Your task to perform on an android device: Open accessibility settings Image 0: 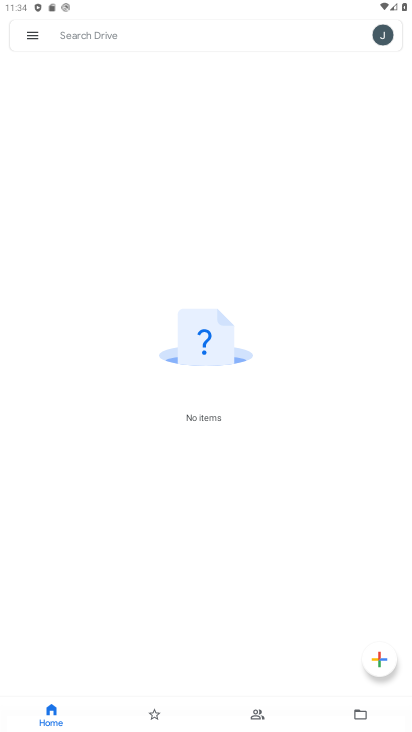
Step 0: press home button
Your task to perform on an android device: Open accessibility settings Image 1: 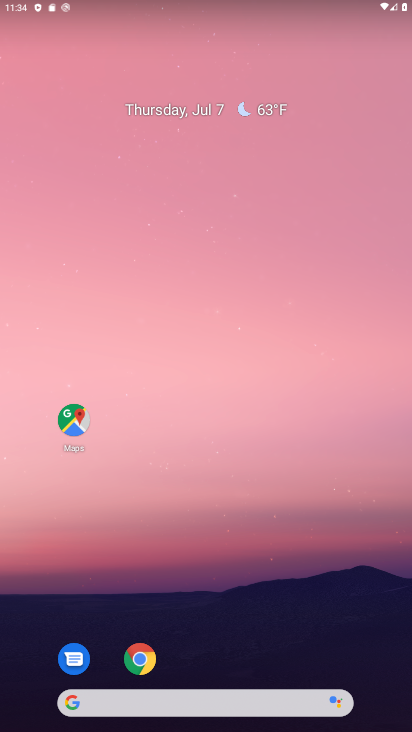
Step 1: drag from (209, 573) to (286, 6)
Your task to perform on an android device: Open accessibility settings Image 2: 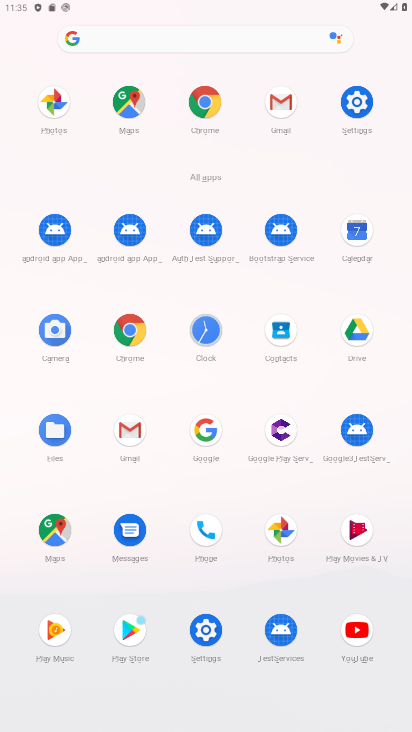
Step 2: click (203, 646)
Your task to perform on an android device: Open accessibility settings Image 3: 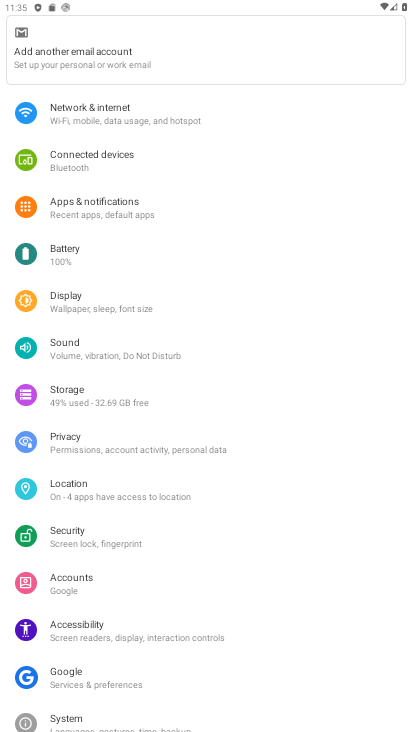
Step 3: click (82, 634)
Your task to perform on an android device: Open accessibility settings Image 4: 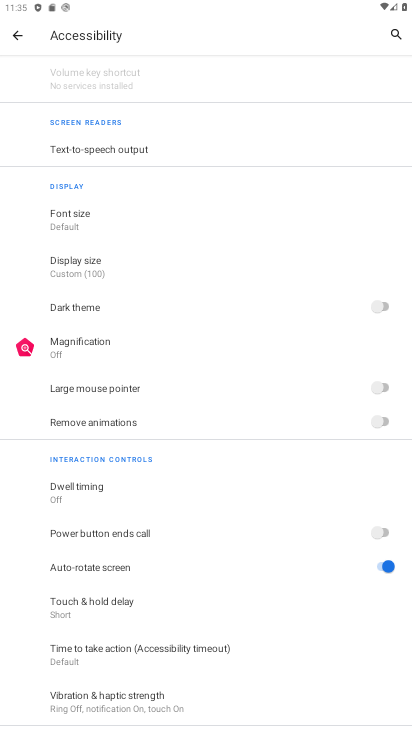
Step 4: task complete